Your task to perform on an android device: allow notifications from all sites in the chrome app Image 0: 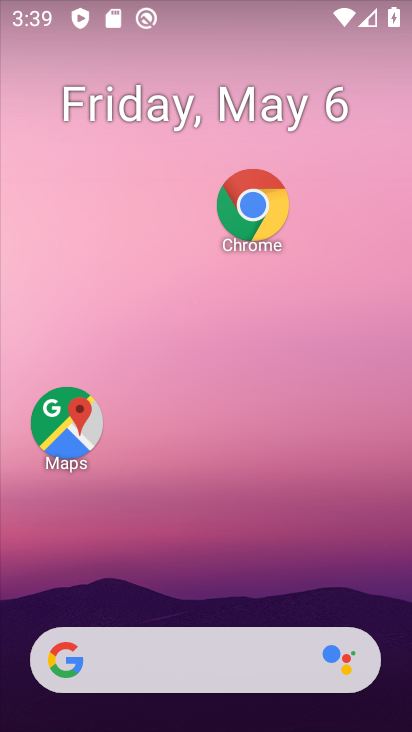
Step 0: click (245, 220)
Your task to perform on an android device: allow notifications from all sites in the chrome app Image 1: 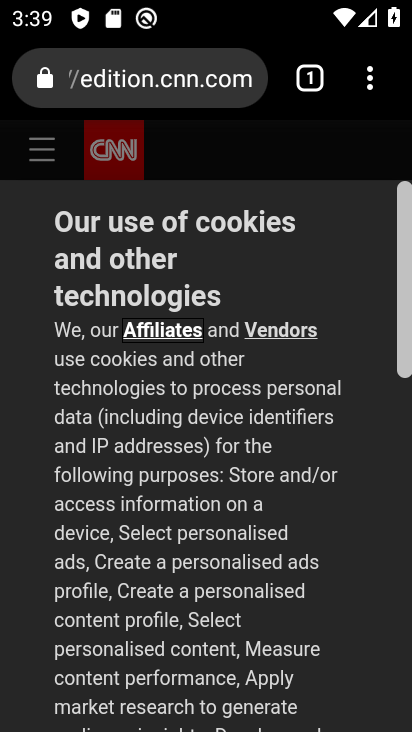
Step 1: click (377, 78)
Your task to perform on an android device: allow notifications from all sites in the chrome app Image 2: 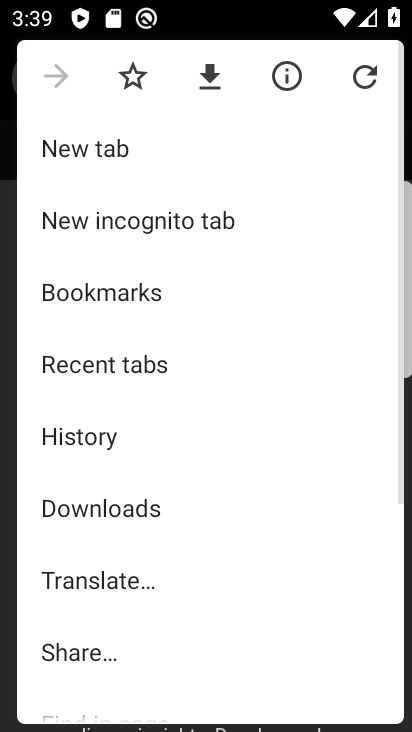
Step 2: drag from (155, 594) to (161, 77)
Your task to perform on an android device: allow notifications from all sites in the chrome app Image 3: 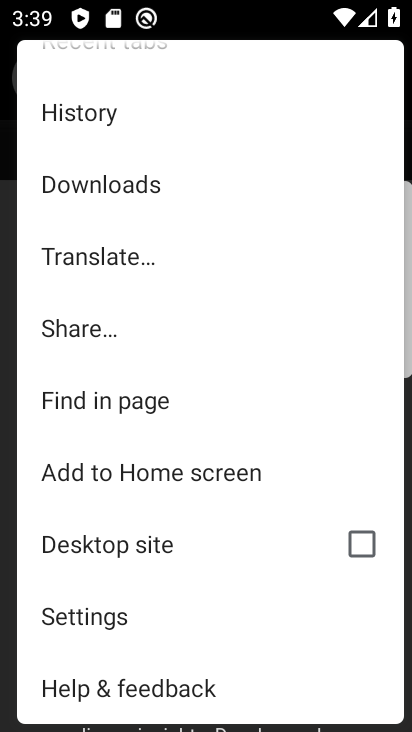
Step 3: click (111, 624)
Your task to perform on an android device: allow notifications from all sites in the chrome app Image 4: 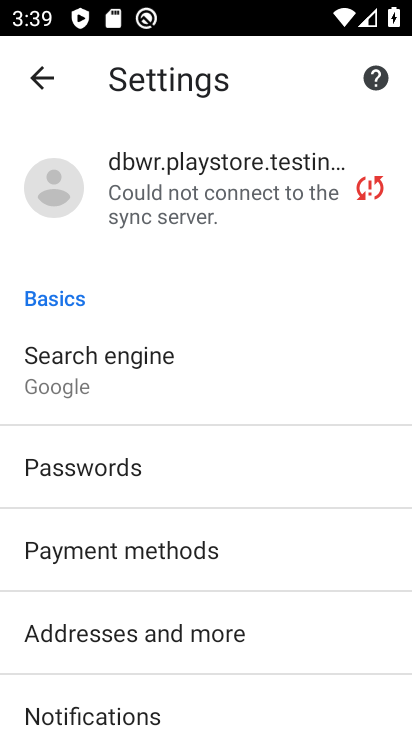
Step 4: drag from (183, 651) to (152, 204)
Your task to perform on an android device: allow notifications from all sites in the chrome app Image 5: 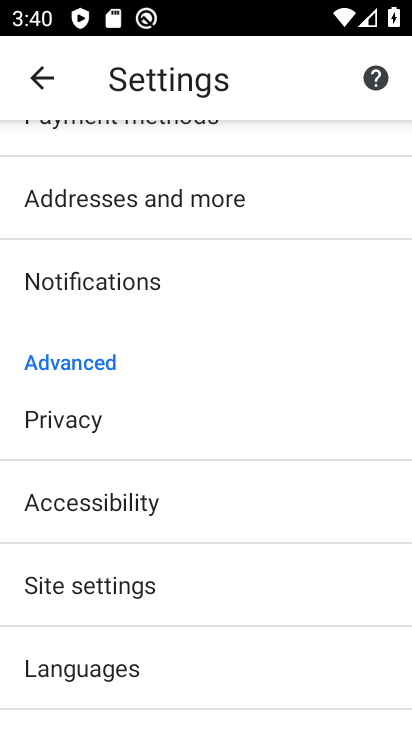
Step 5: click (128, 588)
Your task to perform on an android device: allow notifications from all sites in the chrome app Image 6: 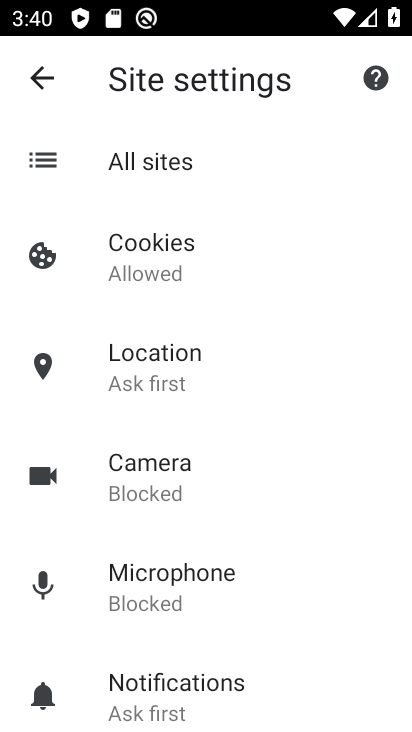
Step 6: drag from (277, 657) to (212, 208)
Your task to perform on an android device: allow notifications from all sites in the chrome app Image 7: 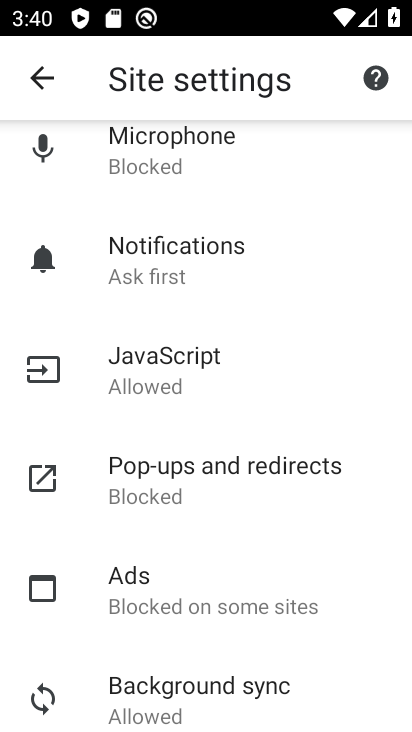
Step 7: click (157, 256)
Your task to perform on an android device: allow notifications from all sites in the chrome app Image 8: 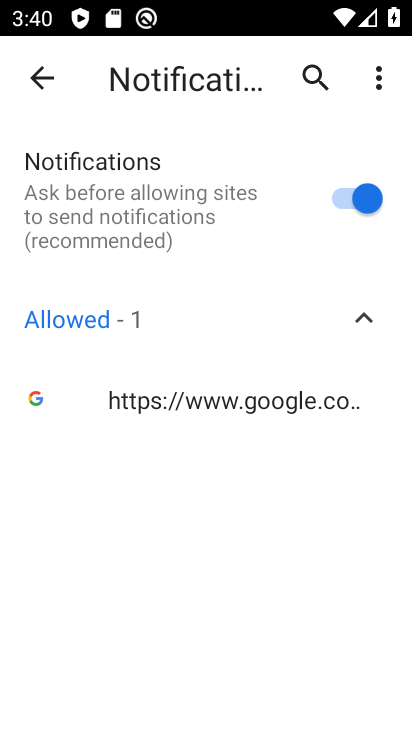
Step 8: task complete